Your task to perform on an android device: Open the phone app and click the voicemail tab. Image 0: 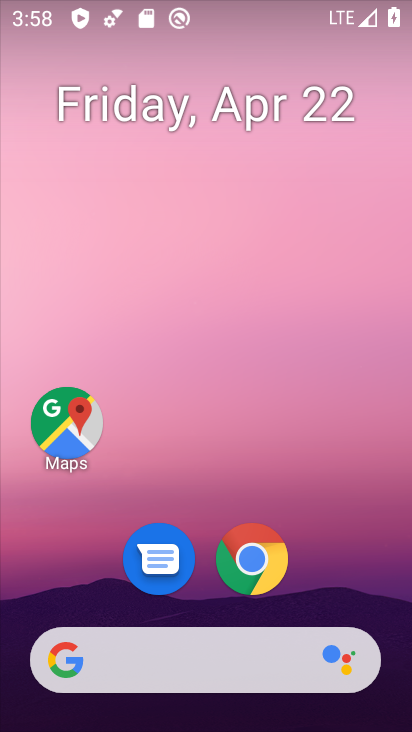
Step 0: drag from (350, 597) to (236, 52)
Your task to perform on an android device: Open the phone app and click the voicemail tab. Image 1: 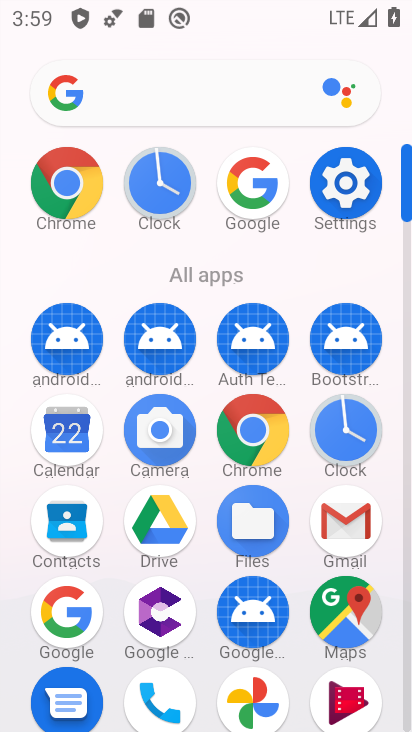
Step 1: click (172, 718)
Your task to perform on an android device: Open the phone app and click the voicemail tab. Image 2: 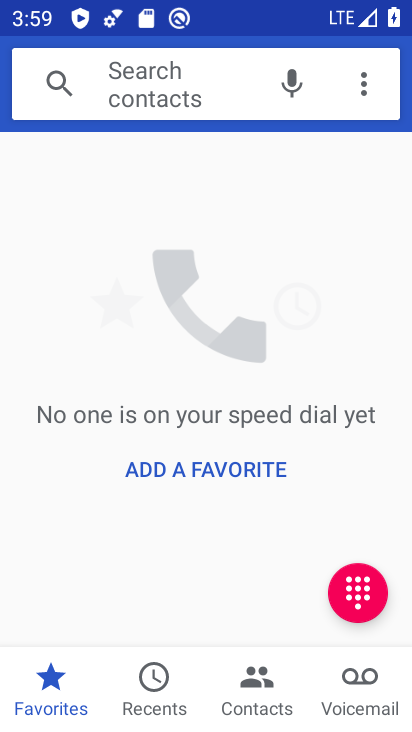
Step 2: click (365, 687)
Your task to perform on an android device: Open the phone app and click the voicemail tab. Image 3: 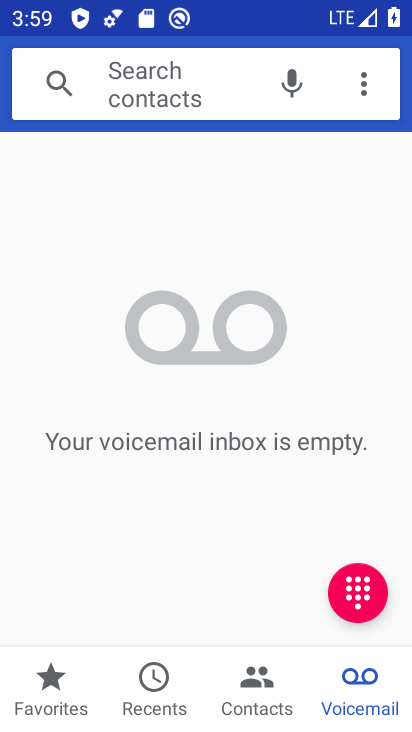
Step 3: task complete